Your task to perform on an android device: turn off improve location accuracy Image 0: 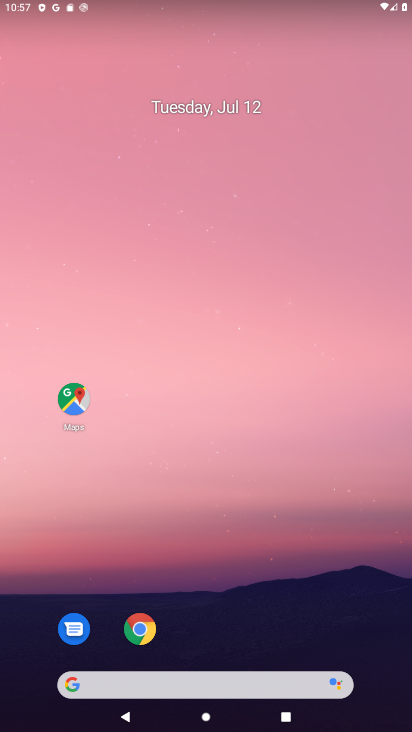
Step 0: drag from (184, 625) to (224, 212)
Your task to perform on an android device: turn off improve location accuracy Image 1: 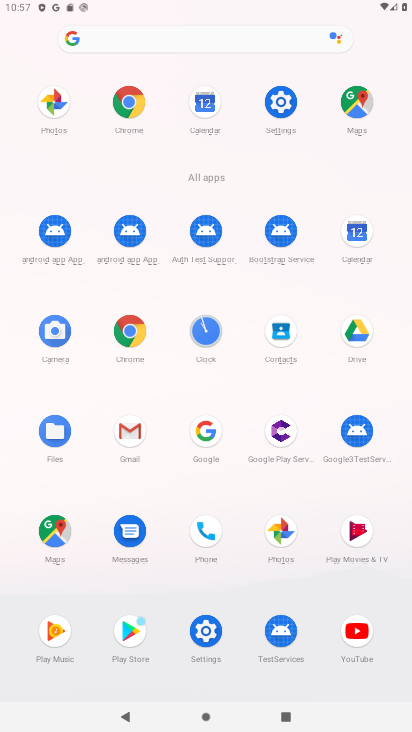
Step 1: click (279, 96)
Your task to perform on an android device: turn off improve location accuracy Image 2: 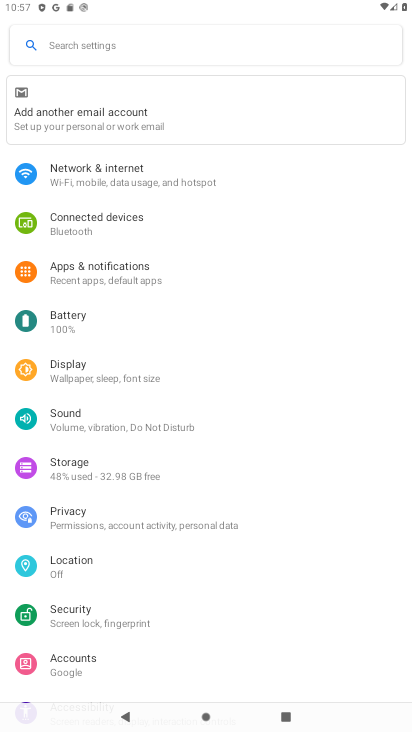
Step 2: click (101, 566)
Your task to perform on an android device: turn off improve location accuracy Image 3: 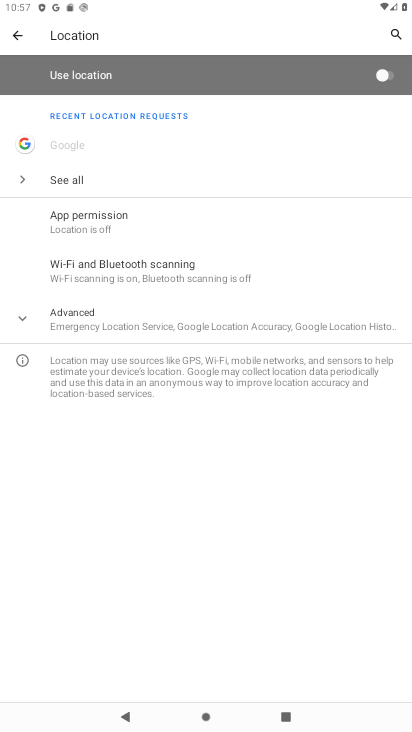
Step 3: click (148, 322)
Your task to perform on an android device: turn off improve location accuracy Image 4: 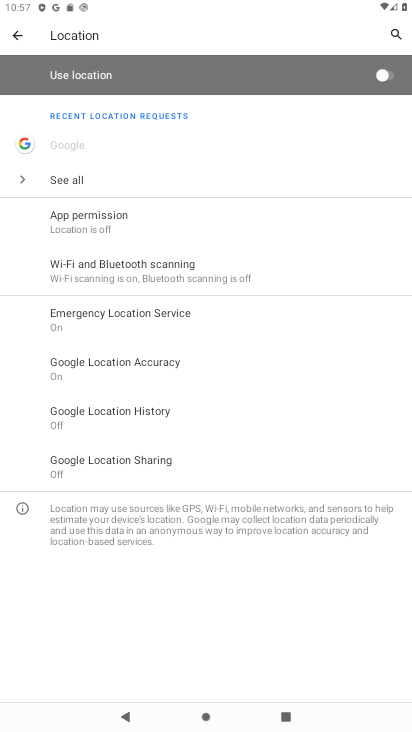
Step 4: click (147, 357)
Your task to perform on an android device: turn off improve location accuracy Image 5: 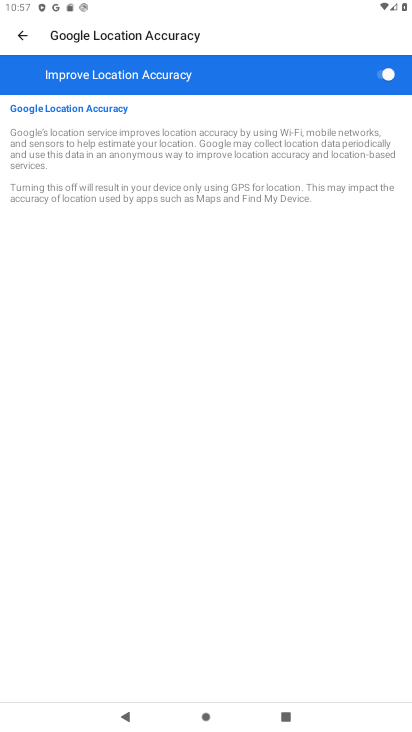
Step 5: click (380, 72)
Your task to perform on an android device: turn off improve location accuracy Image 6: 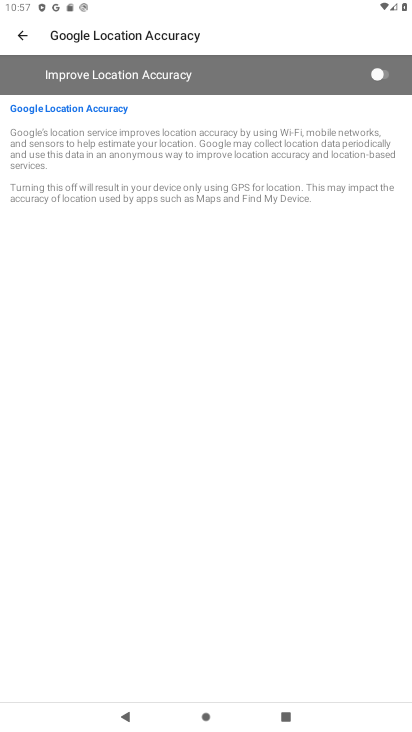
Step 6: task complete